Your task to perform on an android device: check battery use Image 0: 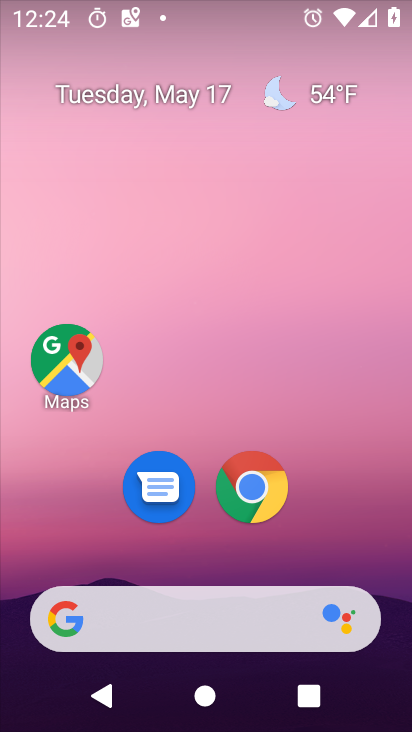
Step 0: drag from (196, 590) to (326, 16)
Your task to perform on an android device: check battery use Image 1: 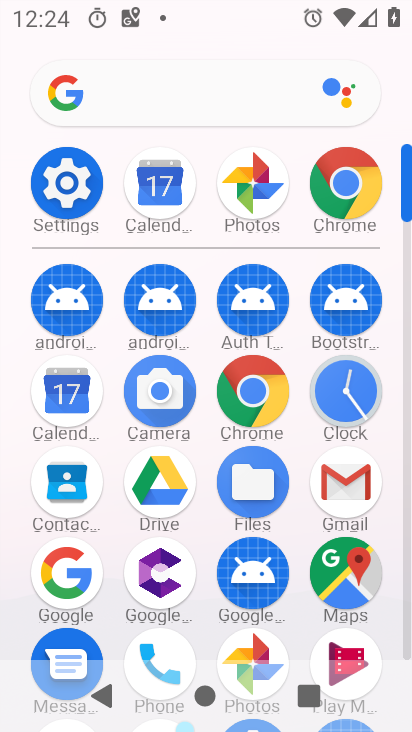
Step 1: click (71, 185)
Your task to perform on an android device: check battery use Image 2: 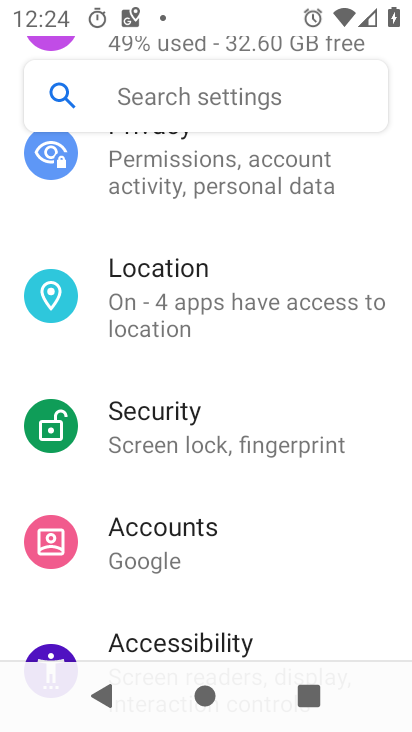
Step 2: drag from (274, 261) to (203, 704)
Your task to perform on an android device: check battery use Image 3: 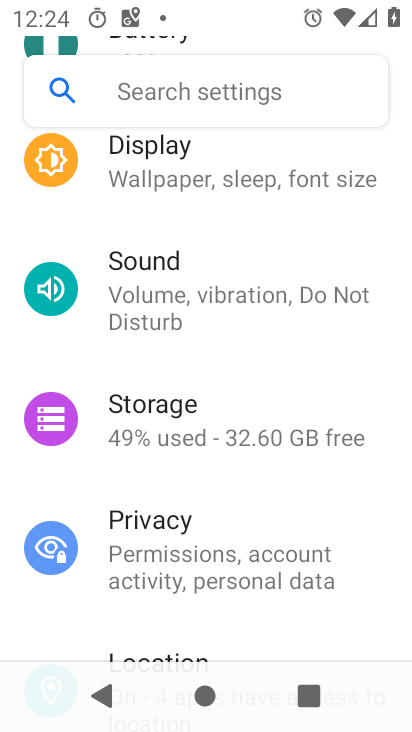
Step 3: drag from (207, 218) to (204, 682)
Your task to perform on an android device: check battery use Image 4: 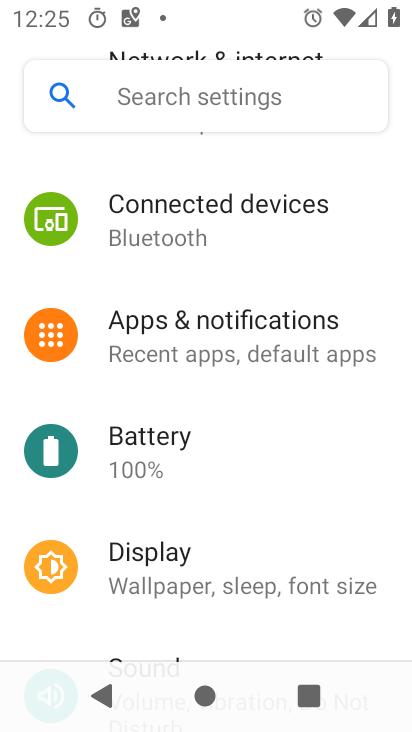
Step 4: click (179, 449)
Your task to perform on an android device: check battery use Image 5: 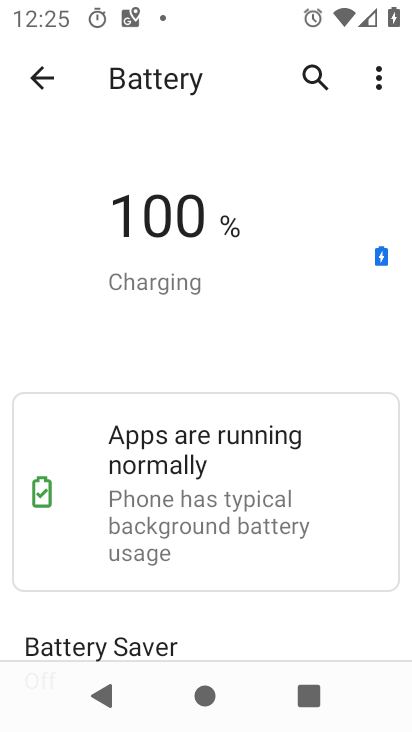
Step 5: click (378, 78)
Your task to perform on an android device: check battery use Image 6: 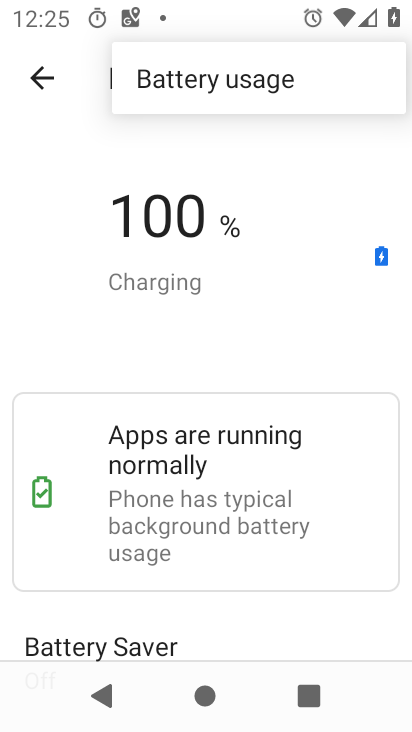
Step 6: click (229, 88)
Your task to perform on an android device: check battery use Image 7: 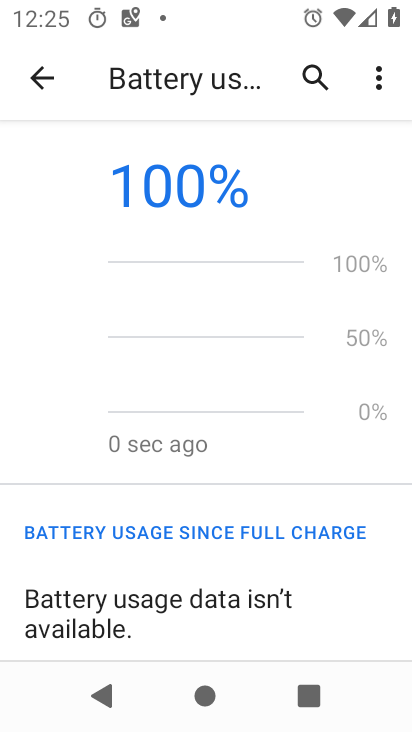
Step 7: task complete